Your task to perform on an android device: Toggle the flashlight Image 0: 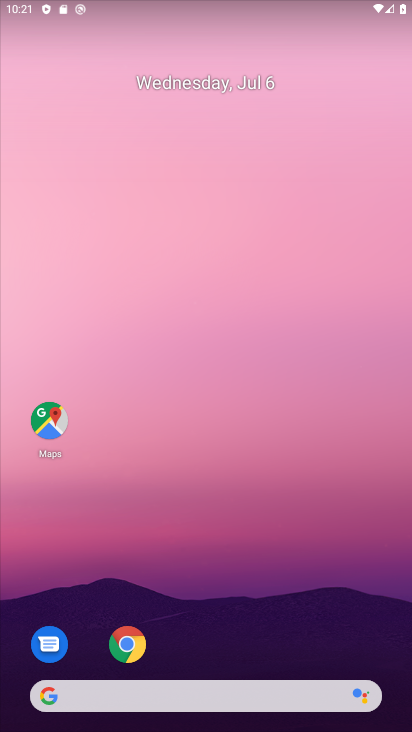
Step 0: drag from (260, 648) to (212, 117)
Your task to perform on an android device: Toggle the flashlight Image 1: 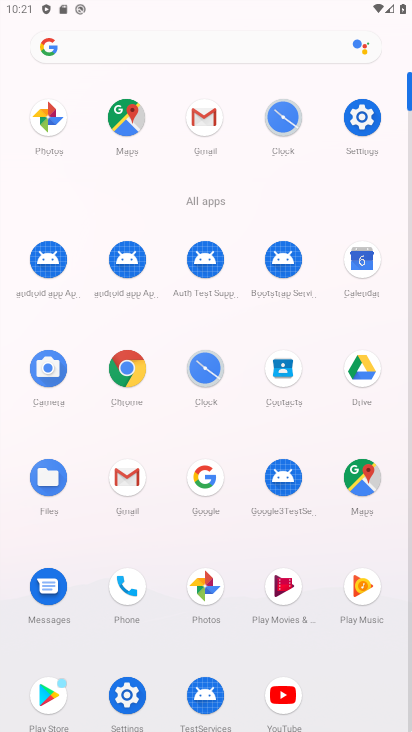
Step 1: drag from (292, 3) to (308, 405)
Your task to perform on an android device: Toggle the flashlight Image 2: 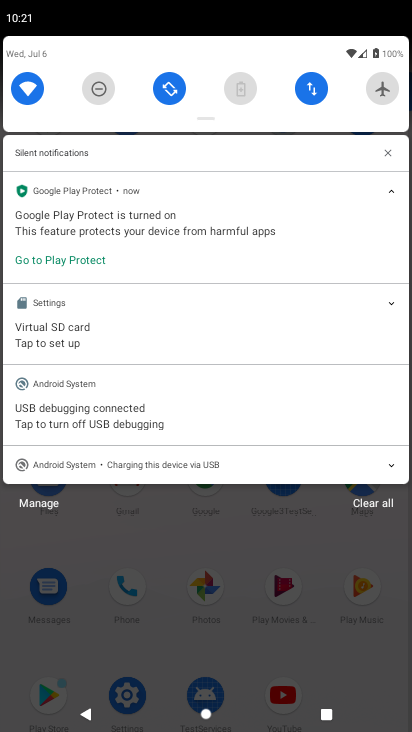
Step 2: drag from (272, 94) to (270, 429)
Your task to perform on an android device: Toggle the flashlight Image 3: 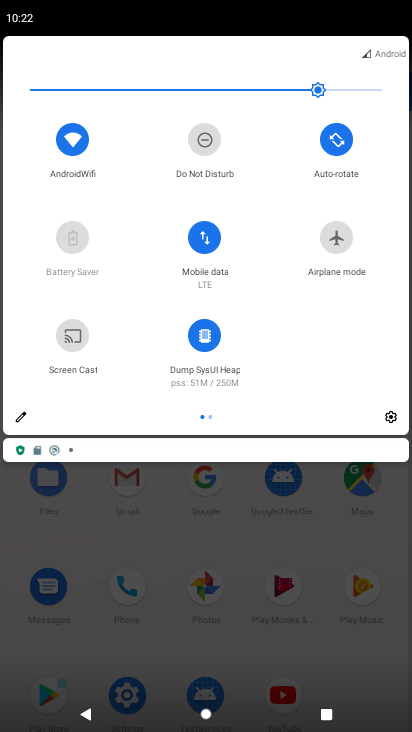
Step 3: drag from (387, 298) to (44, 297)
Your task to perform on an android device: Toggle the flashlight Image 4: 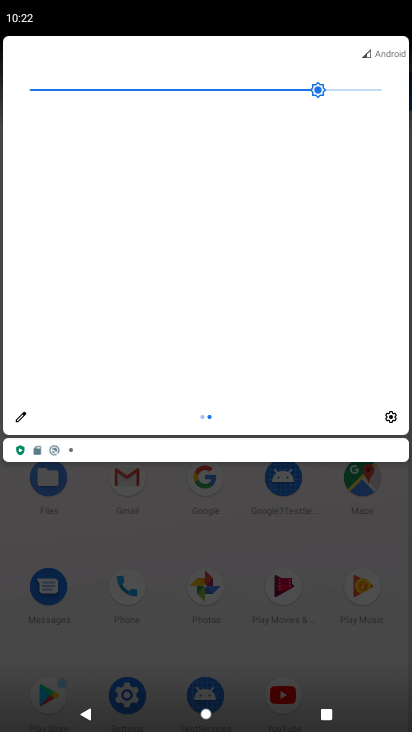
Step 4: click (20, 415)
Your task to perform on an android device: Toggle the flashlight Image 5: 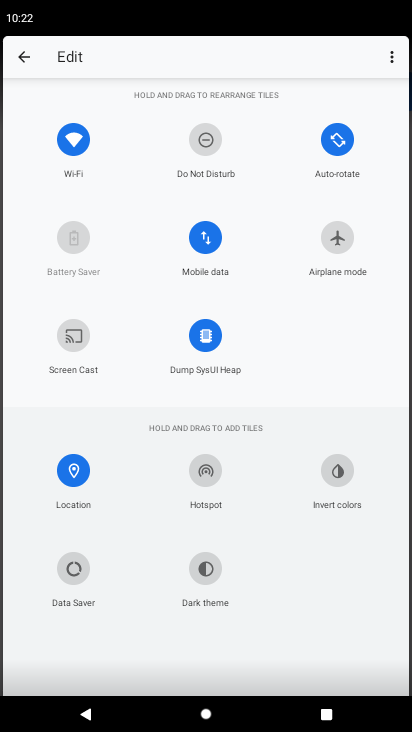
Step 5: task complete